Your task to perform on an android device: Search for "apple airpods pro" on amazon.com, select the first entry, and add it to the cart. Image 0: 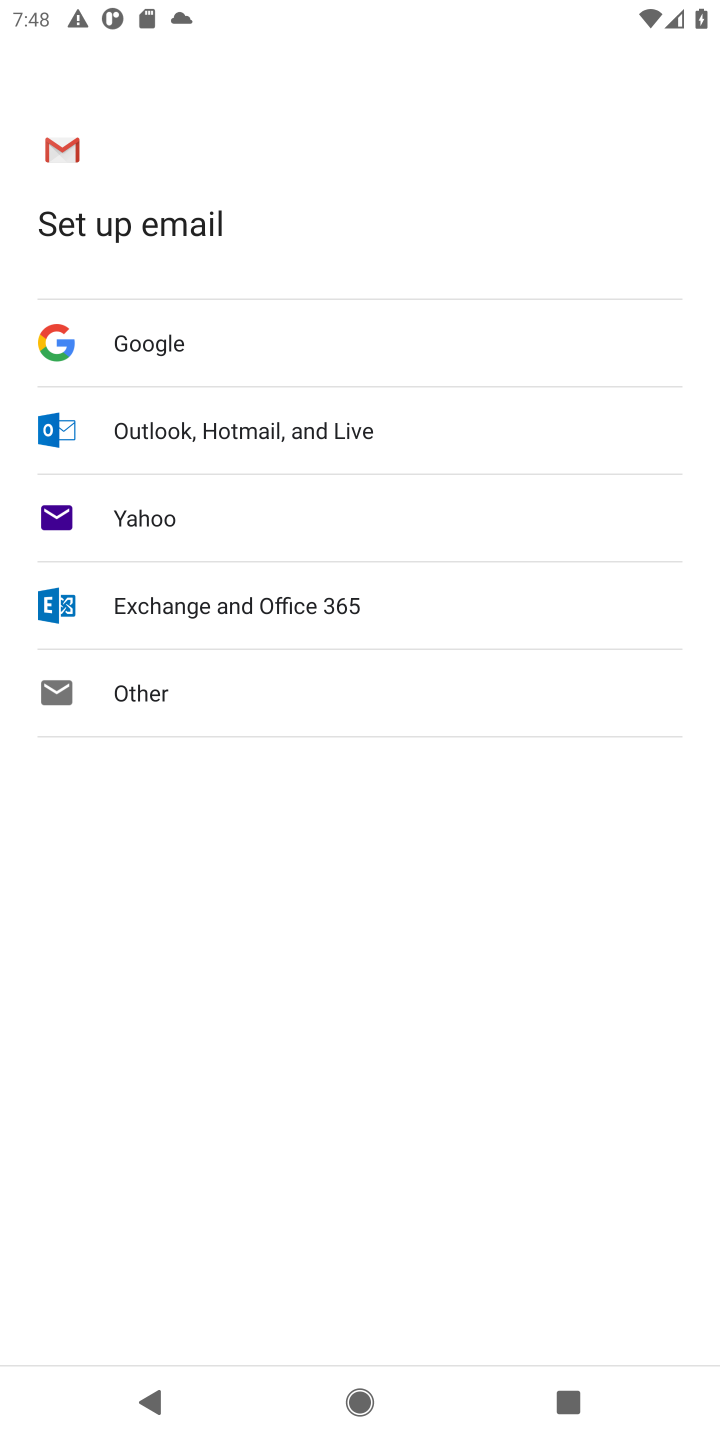
Step 0: press home button
Your task to perform on an android device: Search for "apple airpods pro" on amazon.com, select the first entry, and add it to the cart. Image 1: 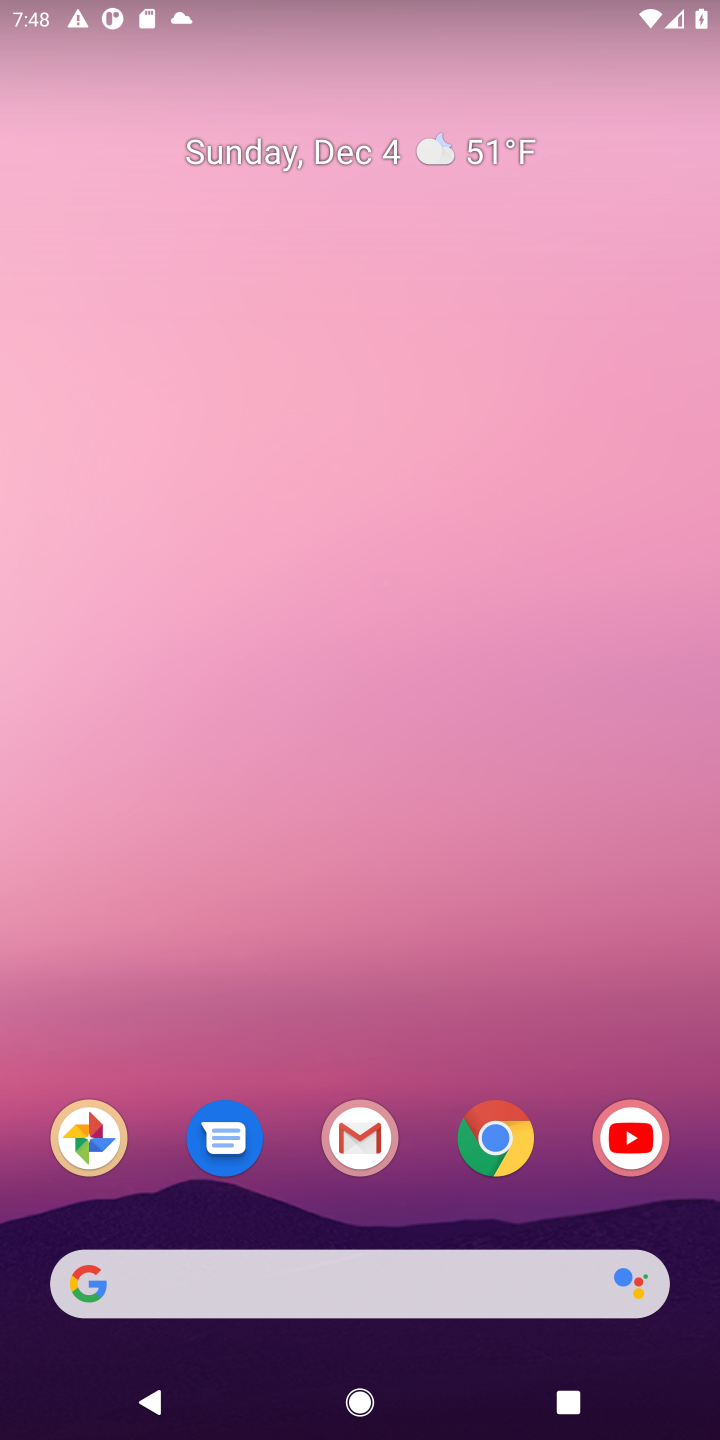
Step 1: click (511, 1130)
Your task to perform on an android device: Search for "apple airpods pro" on amazon.com, select the first entry, and add it to the cart. Image 2: 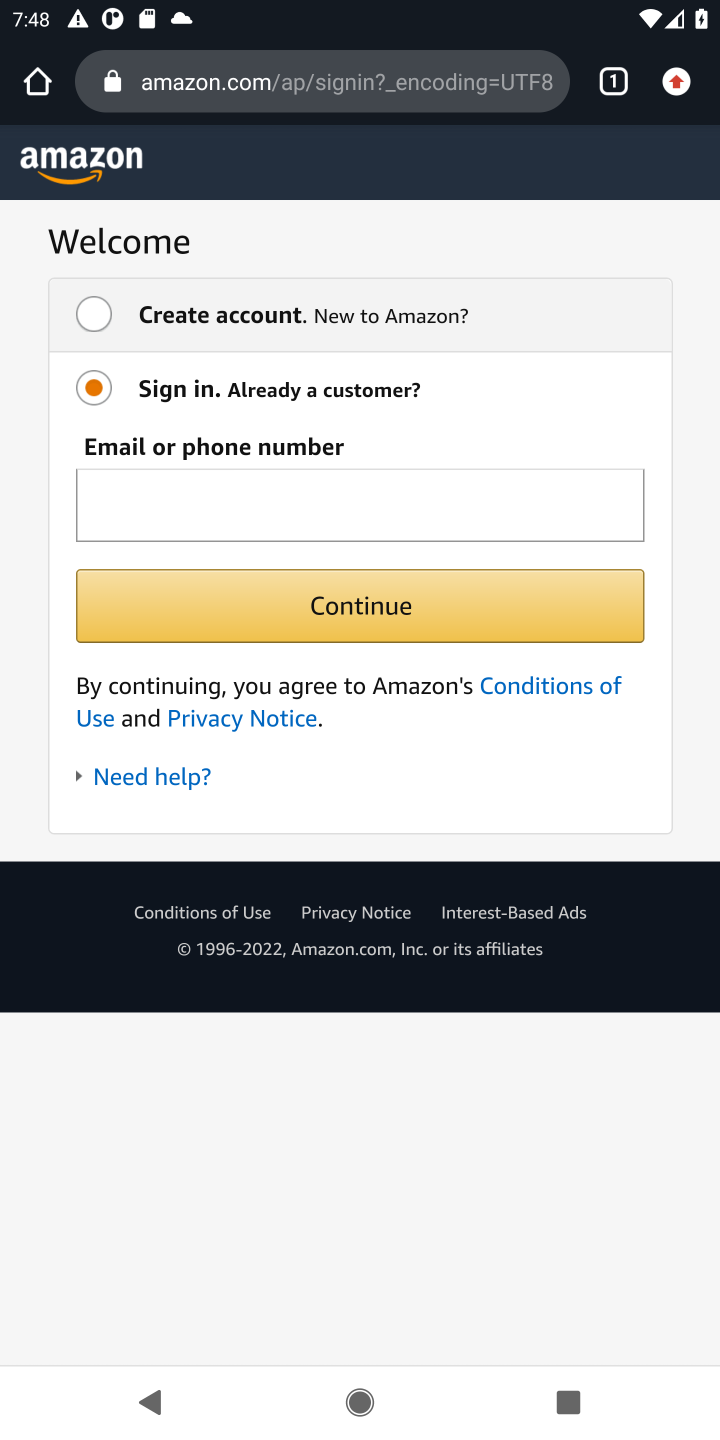
Step 2: press back button
Your task to perform on an android device: Search for "apple airpods pro" on amazon.com, select the first entry, and add it to the cart. Image 3: 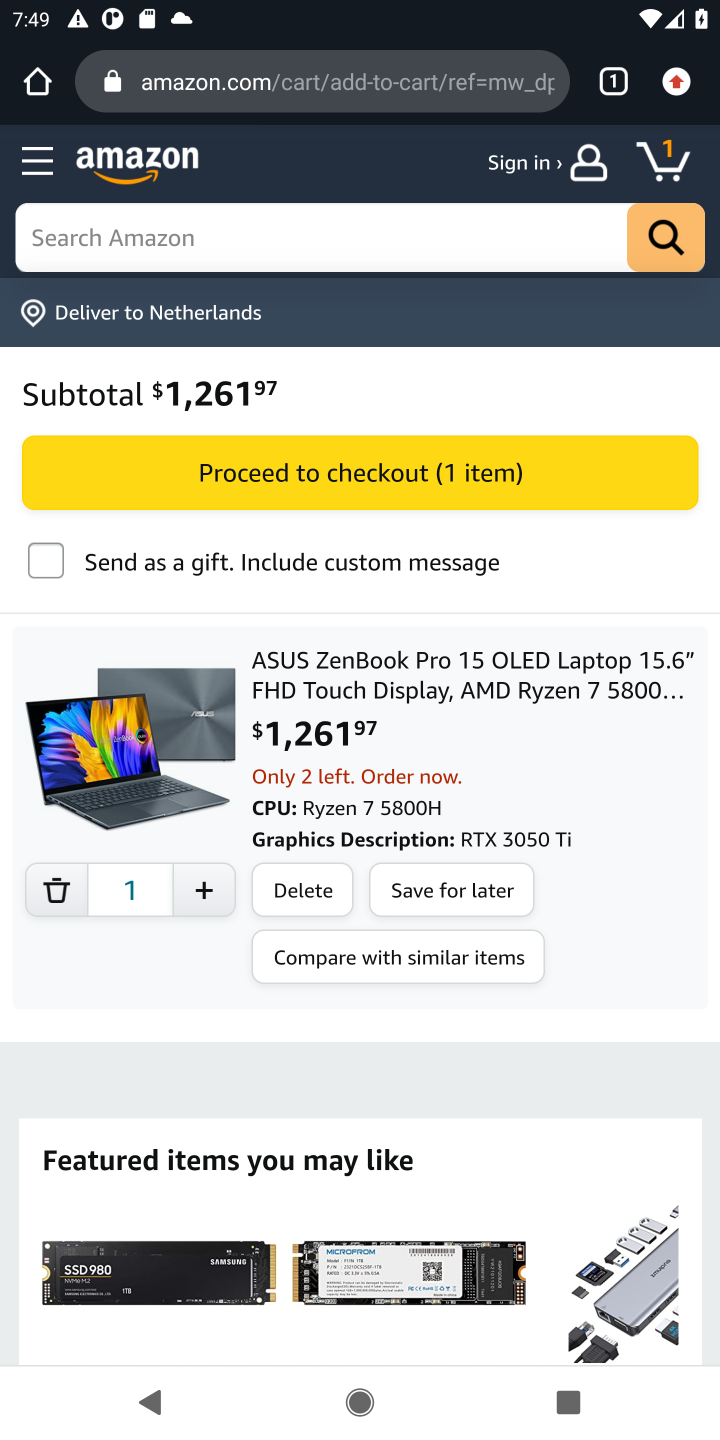
Step 3: click (469, 234)
Your task to perform on an android device: Search for "apple airpods pro" on amazon.com, select the first entry, and add it to the cart. Image 4: 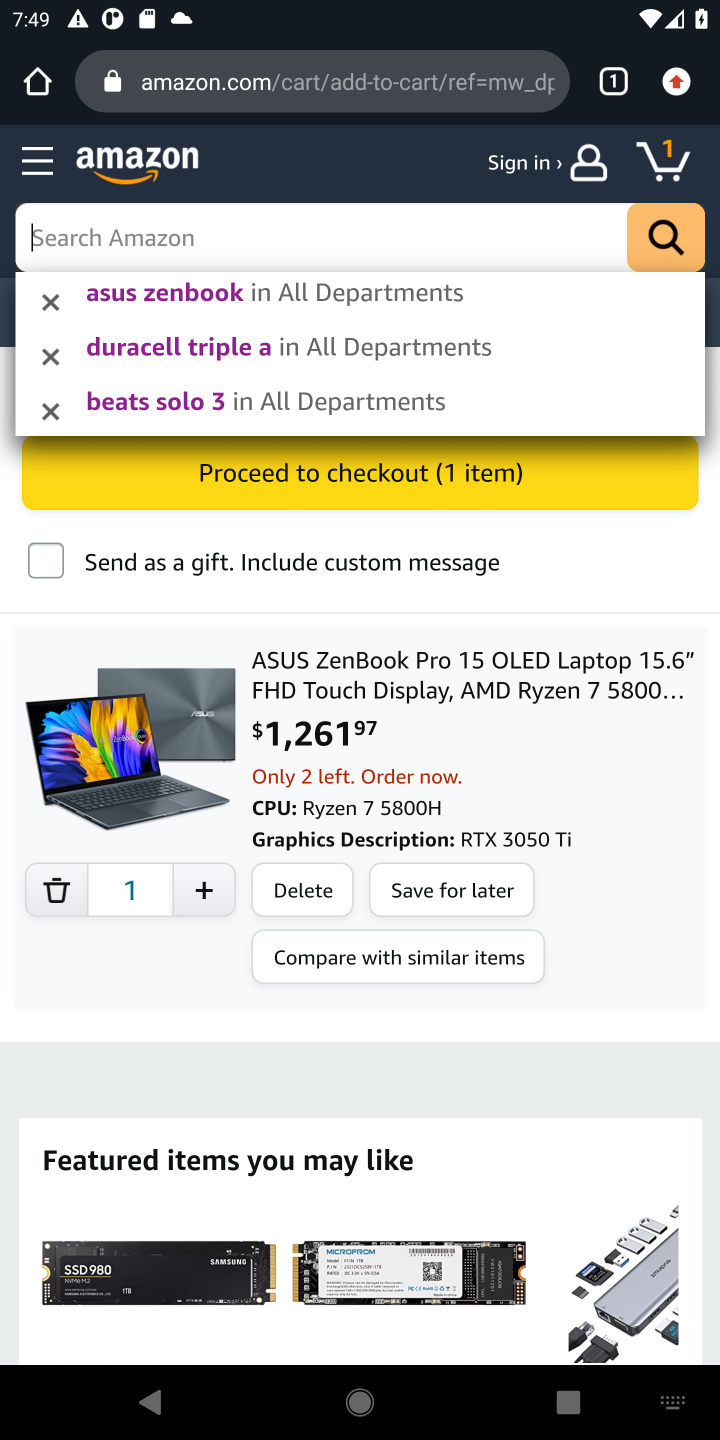
Step 4: type "apple airpods pro"
Your task to perform on an android device: Search for "apple airpods pro" on amazon.com, select the first entry, and add it to the cart. Image 5: 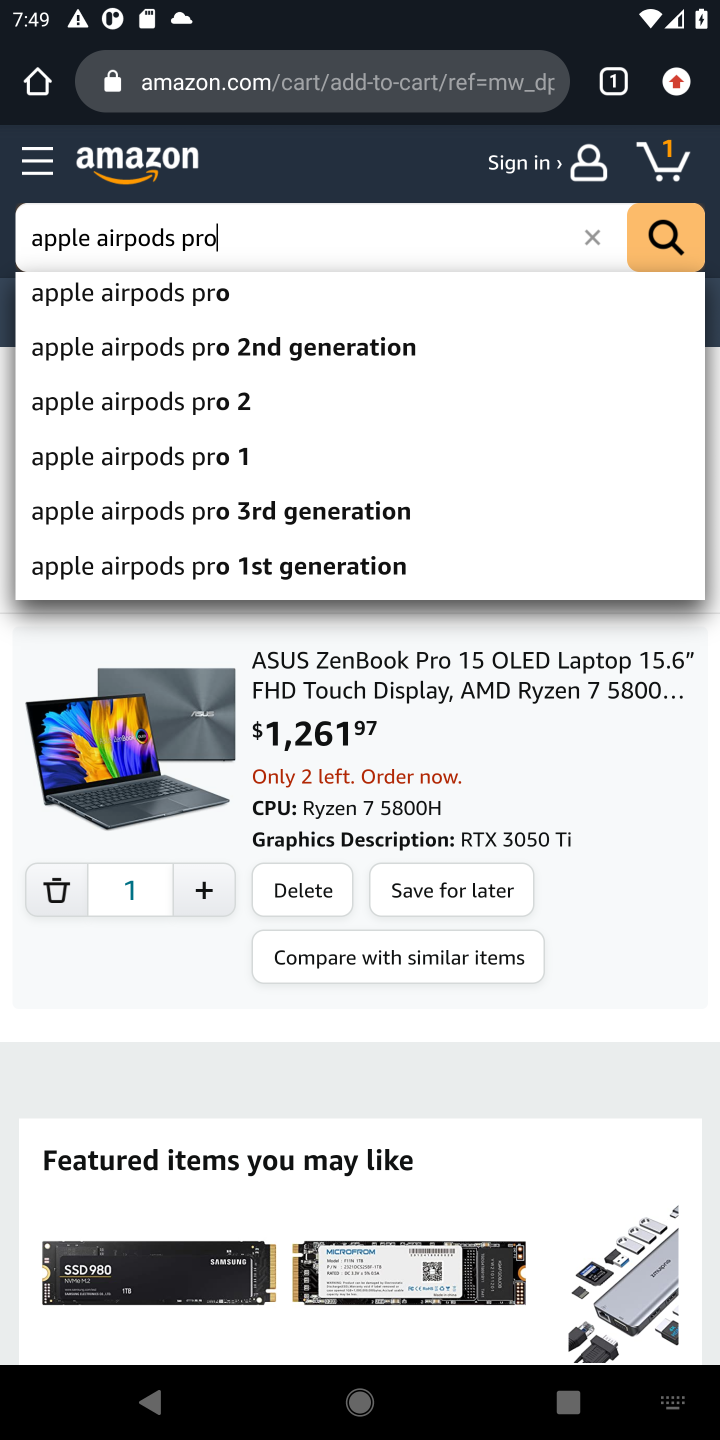
Step 5: press enter
Your task to perform on an android device: Search for "apple airpods pro" on amazon.com, select the first entry, and add it to the cart. Image 6: 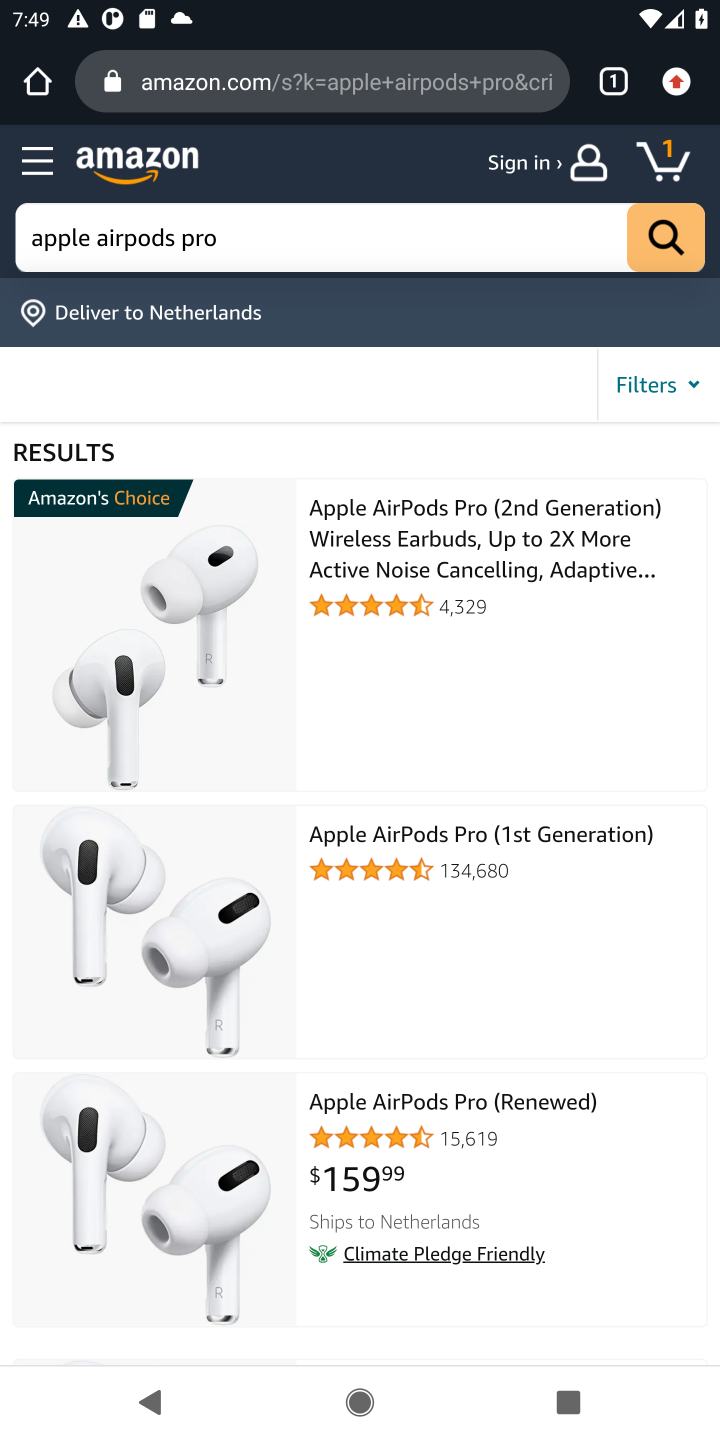
Step 6: click (145, 599)
Your task to perform on an android device: Search for "apple airpods pro" on amazon.com, select the first entry, and add it to the cart. Image 7: 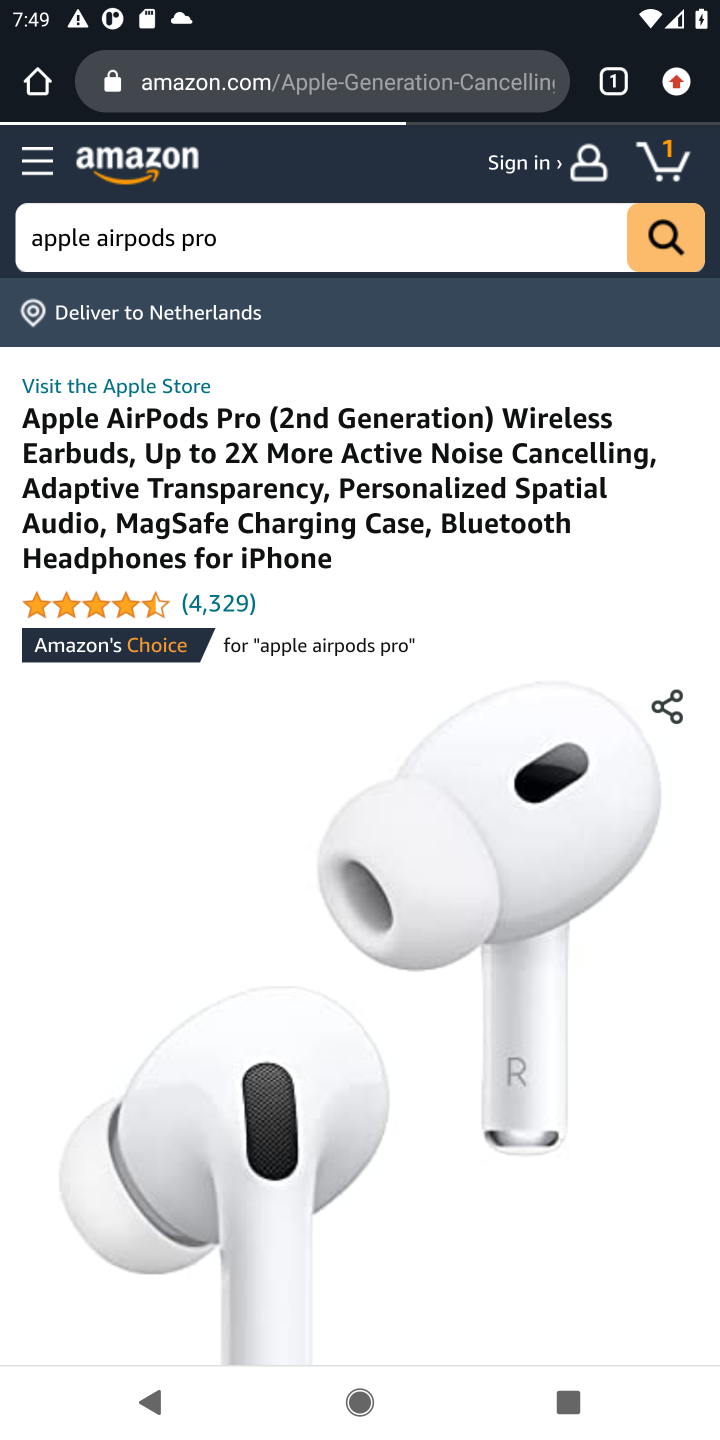
Step 7: drag from (480, 1071) to (648, 339)
Your task to perform on an android device: Search for "apple airpods pro" on amazon.com, select the first entry, and add it to the cart. Image 8: 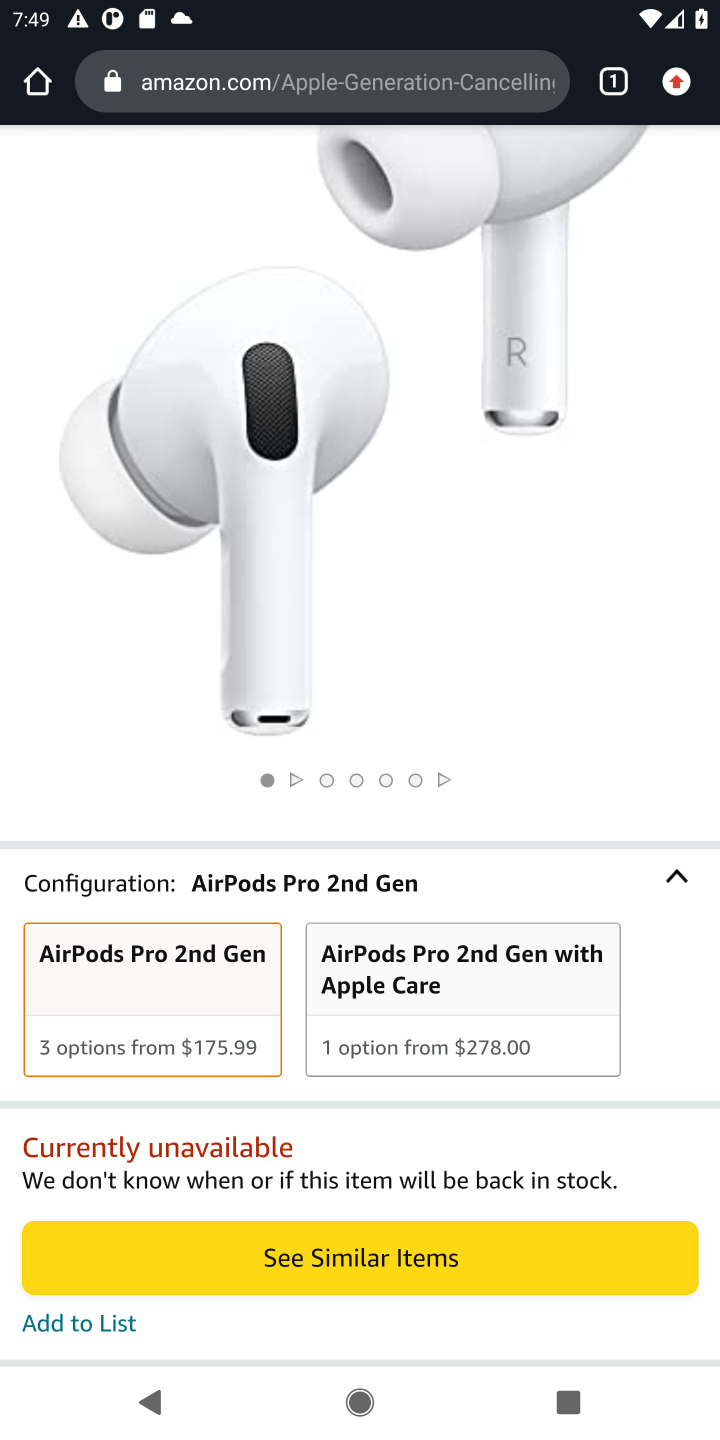
Step 8: press back button
Your task to perform on an android device: Search for "apple airpods pro" on amazon.com, select the first entry, and add it to the cart. Image 9: 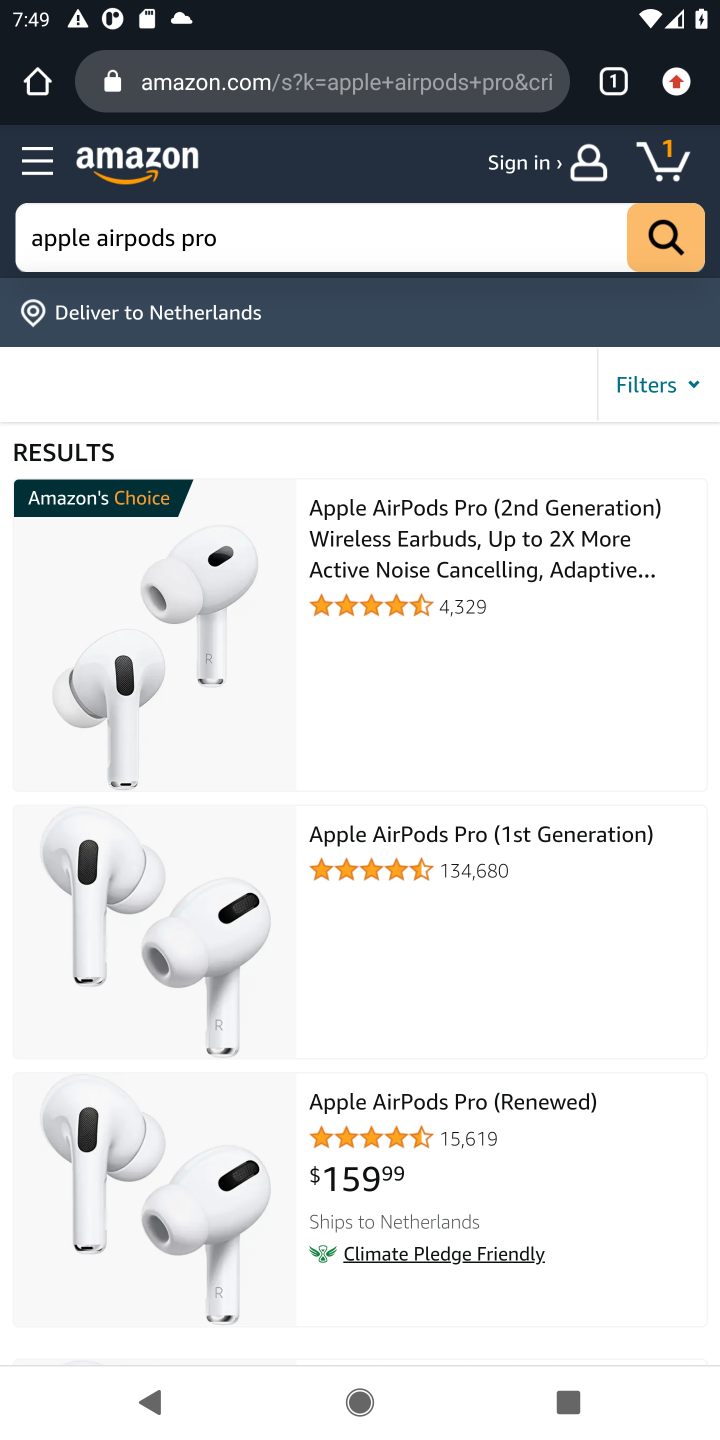
Step 9: click (451, 832)
Your task to perform on an android device: Search for "apple airpods pro" on amazon.com, select the first entry, and add it to the cart. Image 10: 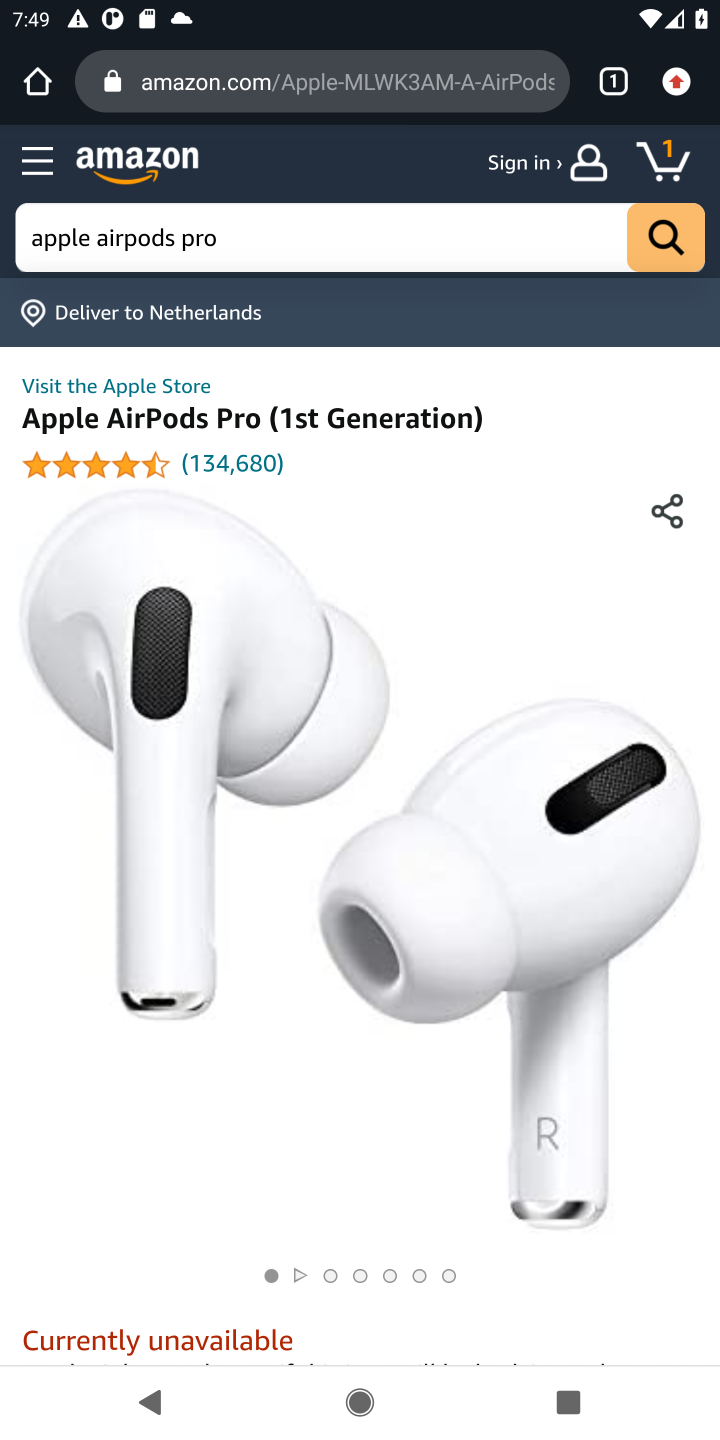
Step 10: press back button
Your task to perform on an android device: Search for "apple airpods pro" on amazon.com, select the first entry, and add it to the cart. Image 11: 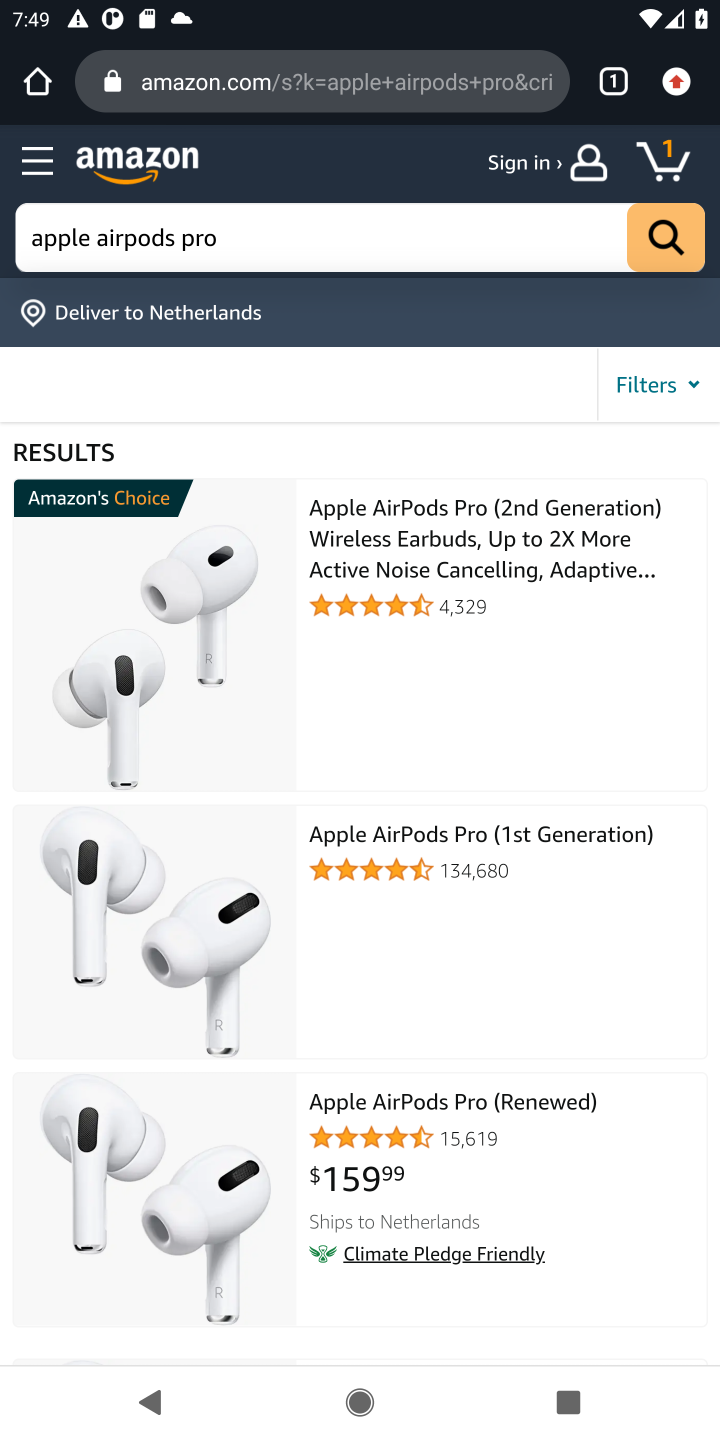
Step 11: click (414, 1094)
Your task to perform on an android device: Search for "apple airpods pro" on amazon.com, select the first entry, and add it to the cart. Image 12: 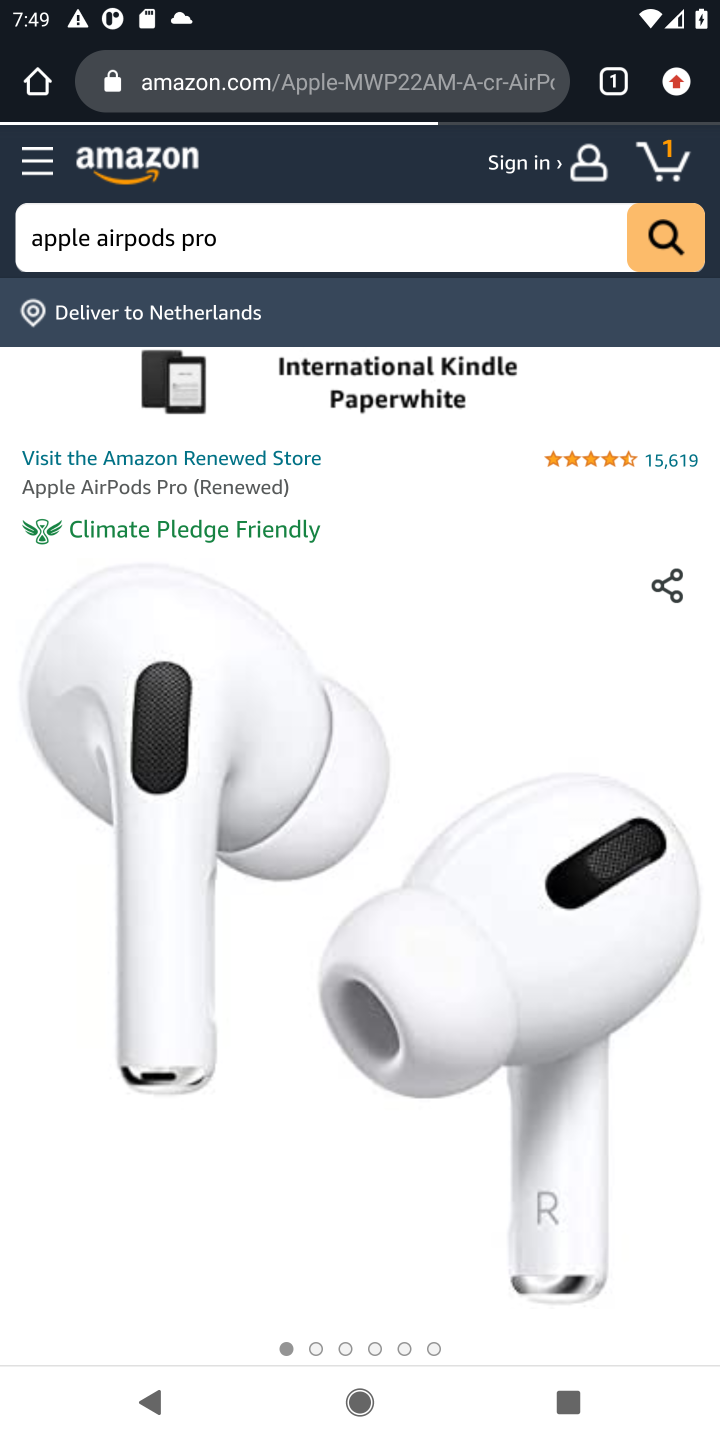
Step 12: drag from (614, 1125) to (621, 378)
Your task to perform on an android device: Search for "apple airpods pro" on amazon.com, select the first entry, and add it to the cart. Image 13: 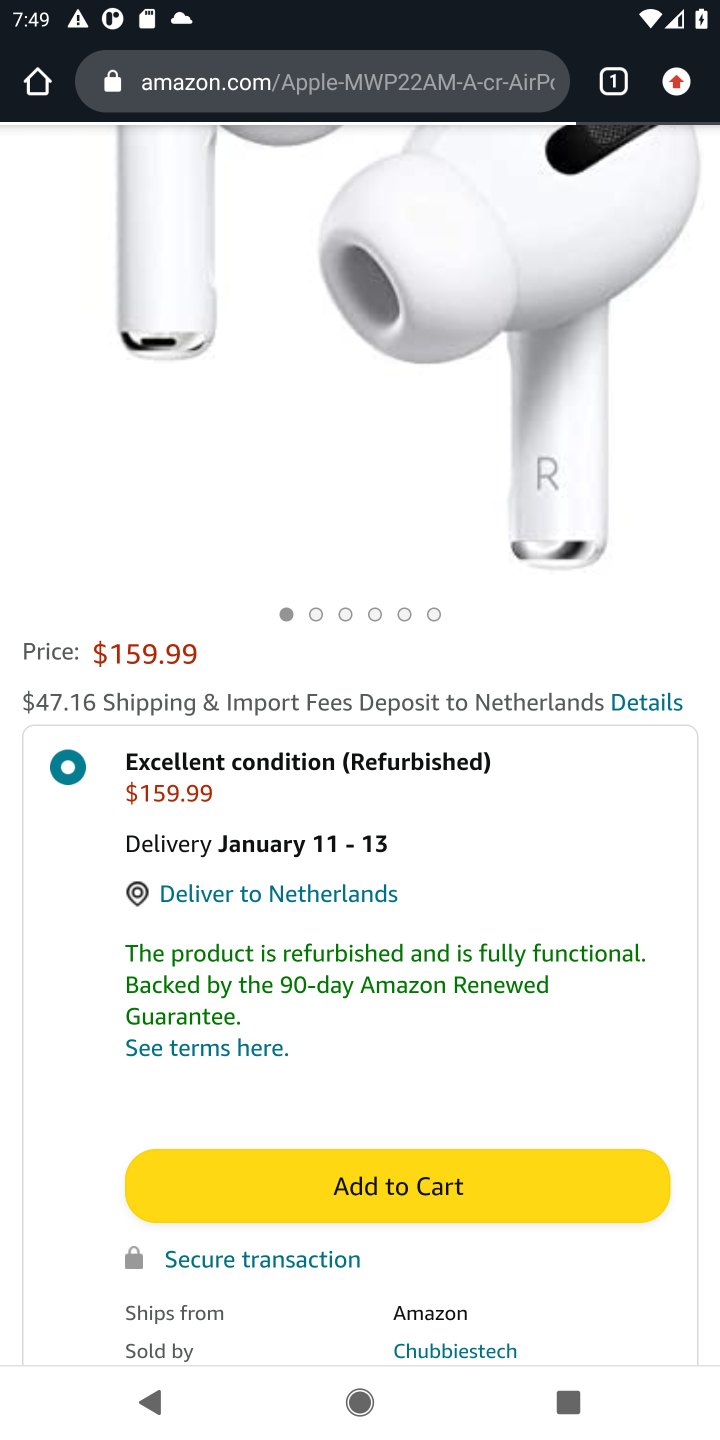
Step 13: click (385, 1195)
Your task to perform on an android device: Search for "apple airpods pro" on amazon.com, select the first entry, and add it to the cart. Image 14: 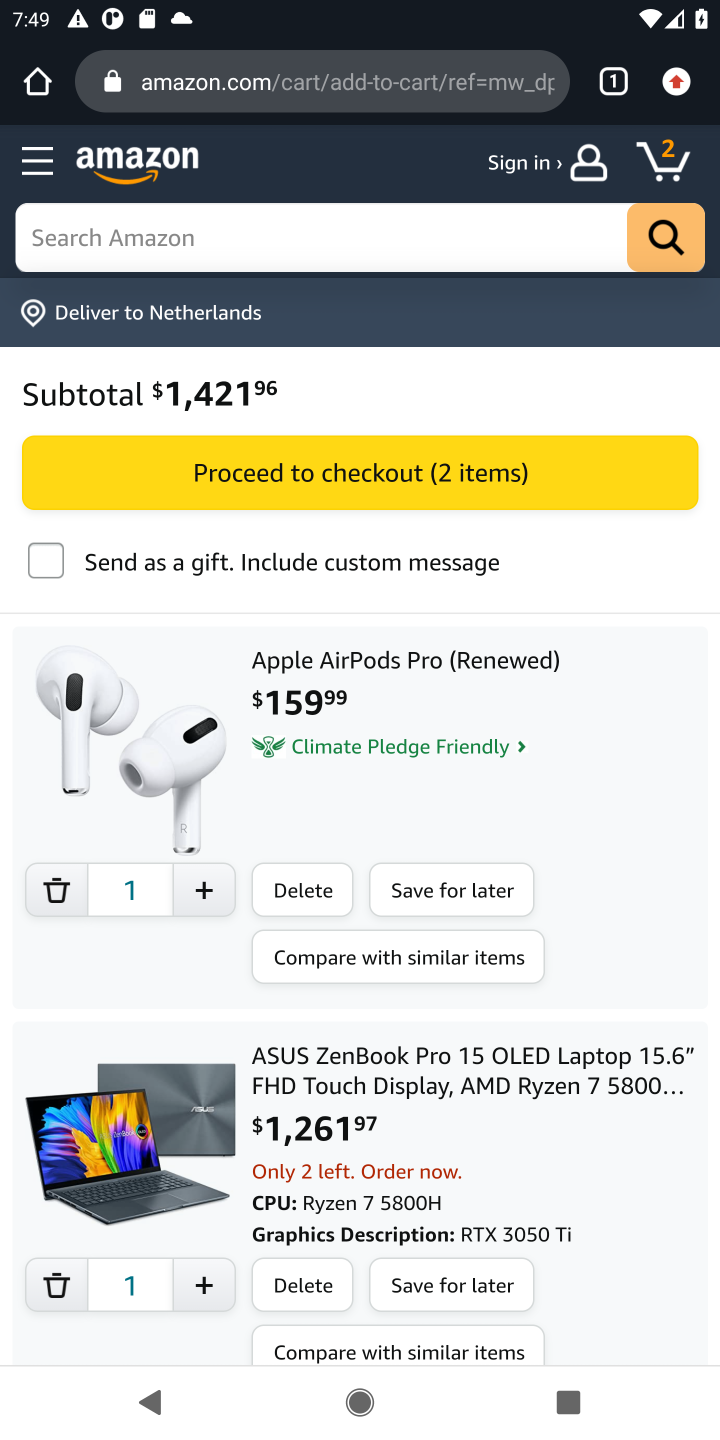
Step 14: task complete